Your task to perform on an android device: change your default location settings in chrome Image 0: 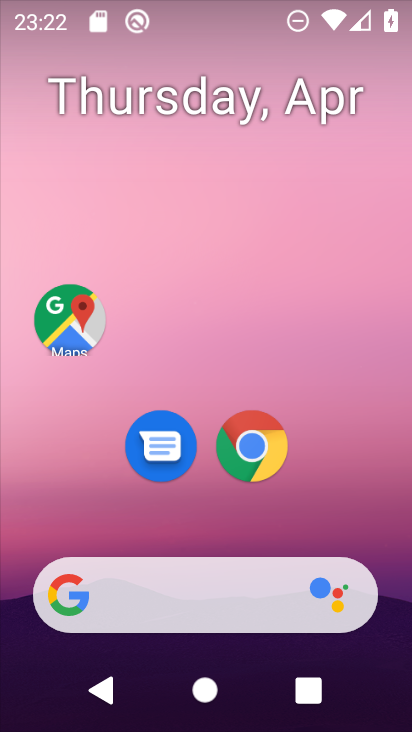
Step 0: drag from (197, 523) to (243, 118)
Your task to perform on an android device: change your default location settings in chrome Image 1: 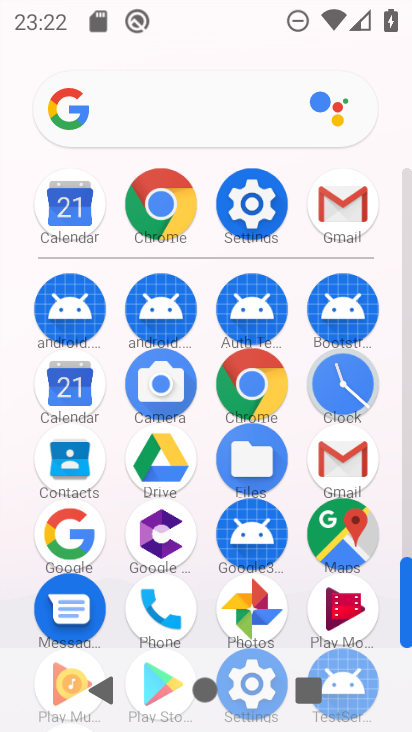
Step 1: drag from (194, 583) to (201, 300)
Your task to perform on an android device: change your default location settings in chrome Image 2: 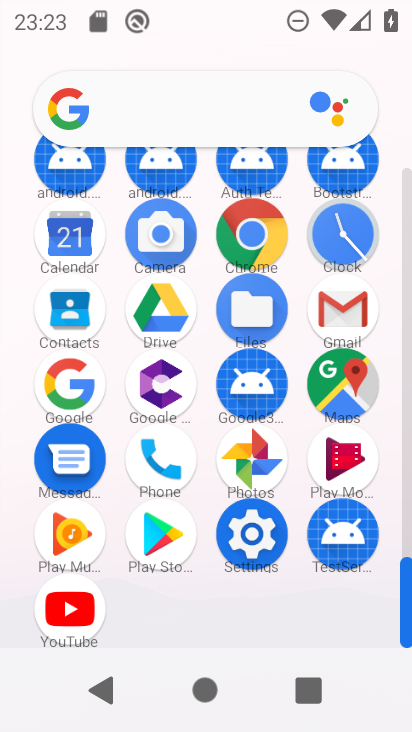
Step 2: click (258, 227)
Your task to perform on an android device: change your default location settings in chrome Image 3: 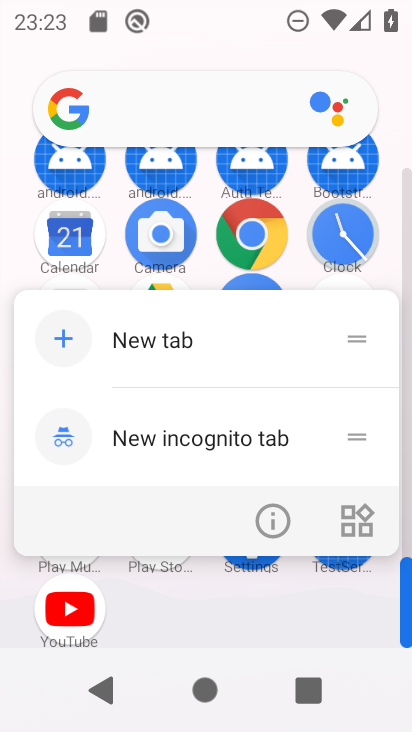
Step 3: click (272, 515)
Your task to perform on an android device: change your default location settings in chrome Image 4: 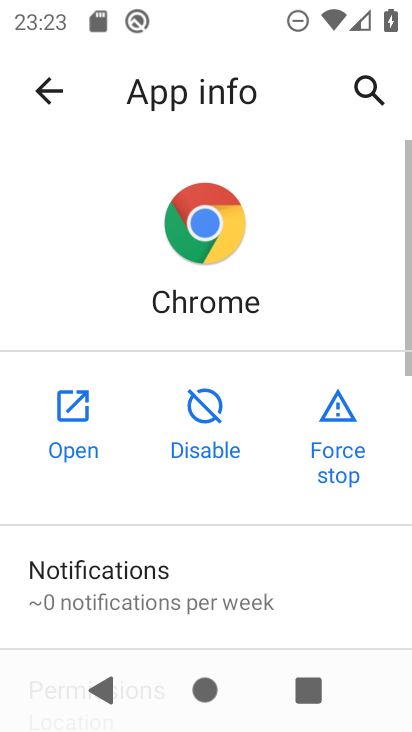
Step 4: click (64, 425)
Your task to perform on an android device: change your default location settings in chrome Image 5: 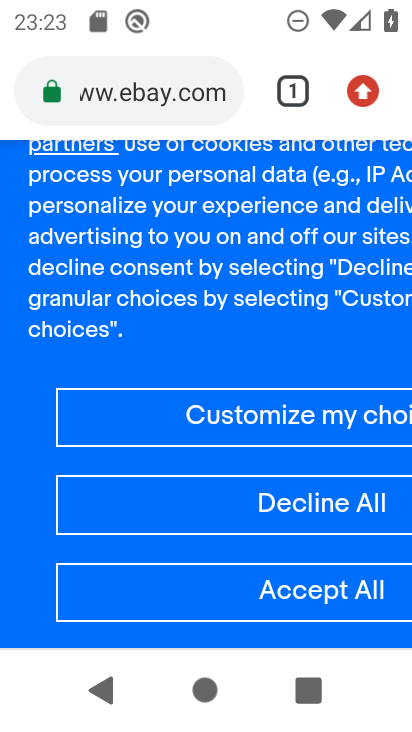
Step 5: drag from (234, 541) to (333, 56)
Your task to perform on an android device: change your default location settings in chrome Image 6: 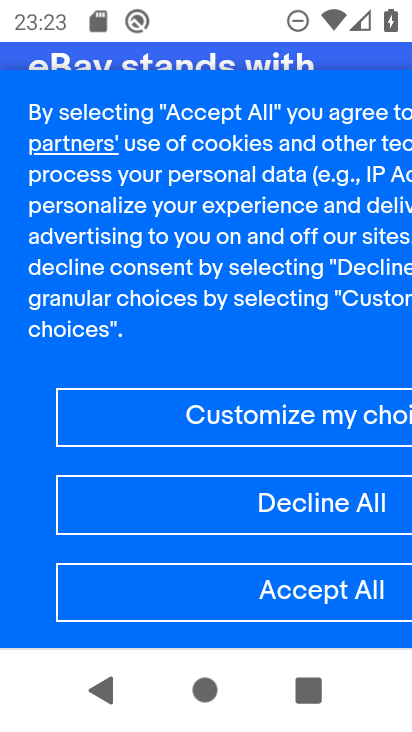
Step 6: drag from (269, 184) to (320, 730)
Your task to perform on an android device: change your default location settings in chrome Image 7: 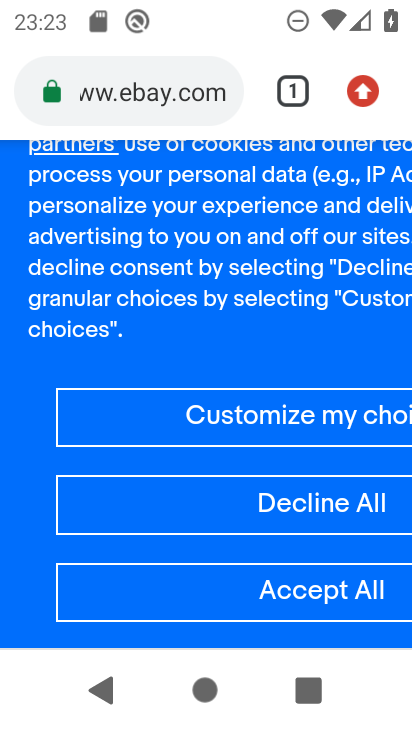
Step 7: drag from (368, 92) to (123, 469)
Your task to perform on an android device: change your default location settings in chrome Image 8: 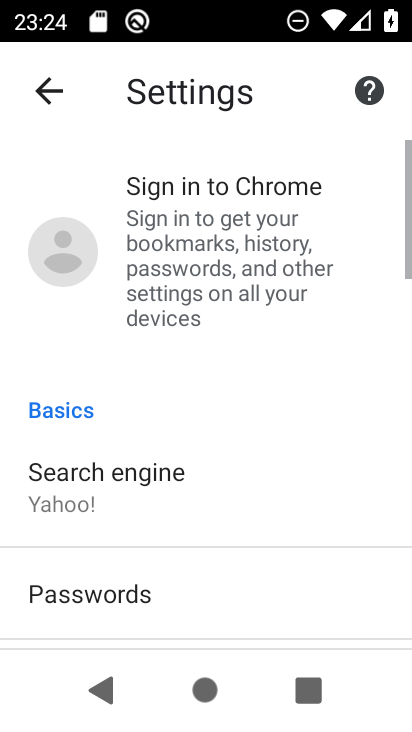
Step 8: drag from (157, 592) to (227, 274)
Your task to perform on an android device: change your default location settings in chrome Image 9: 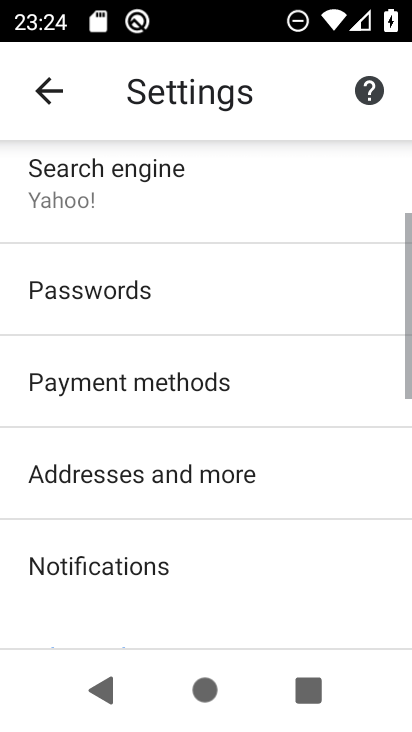
Step 9: drag from (167, 561) to (232, 318)
Your task to perform on an android device: change your default location settings in chrome Image 10: 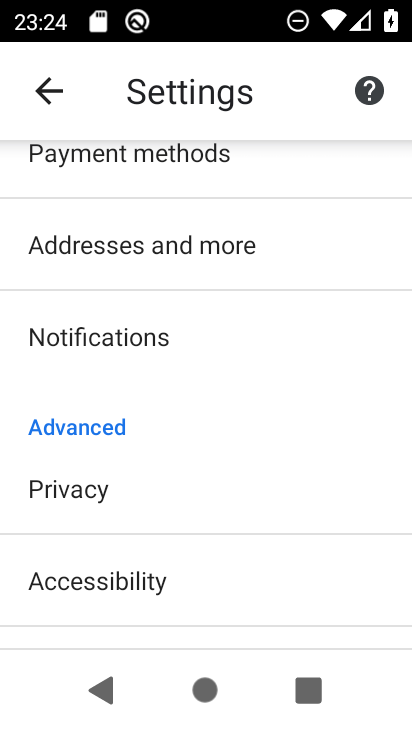
Step 10: drag from (204, 520) to (328, 213)
Your task to perform on an android device: change your default location settings in chrome Image 11: 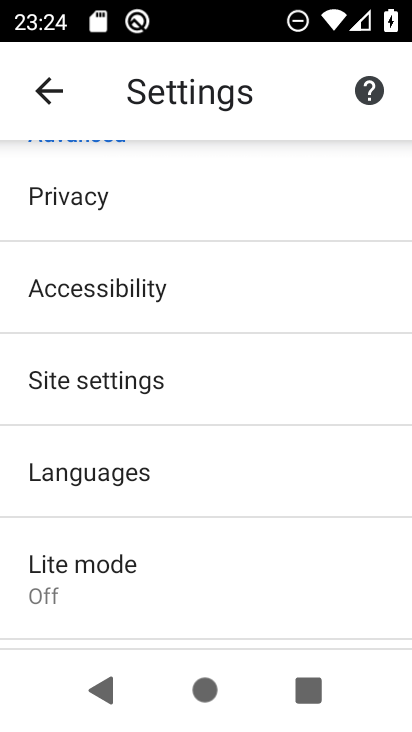
Step 11: drag from (215, 487) to (251, 273)
Your task to perform on an android device: change your default location settings in chrome Image 12: 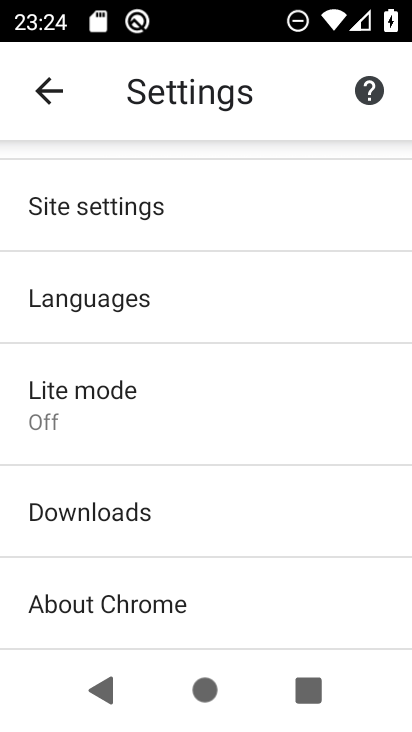
Step 12: click (183, 196)
Your task to perform on an android device: change your default location settings in chrome Image 13: 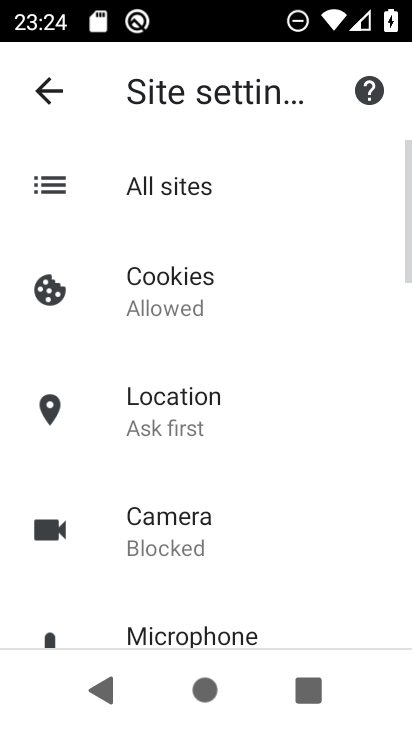
Step 13: click (194, 414)
Your task to perform on an android device: change your default location settings in chrome Image 14: 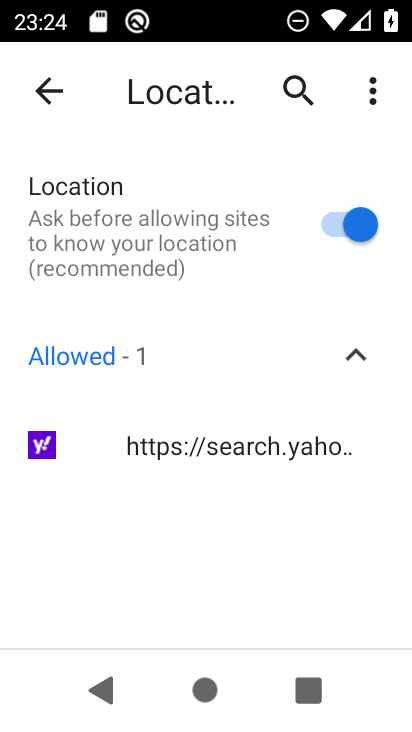
Step 14: task complete